Your task to perform on an android device: Search for Mexican restaurants on Maps Image 0: 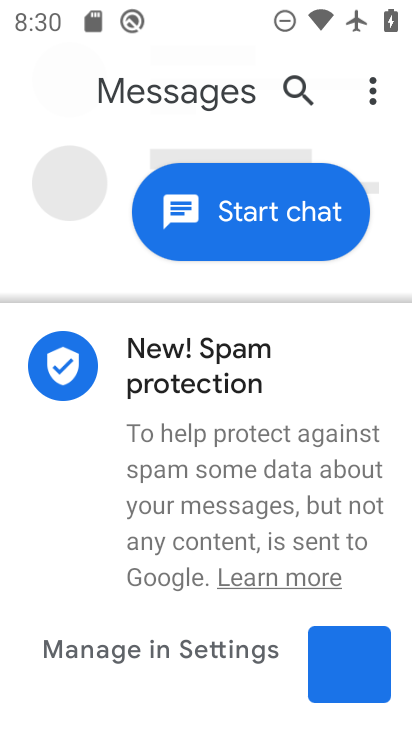
Step 0: press home button
Your task to perform on an android device: Search for Mexican restaurants on Maps Image 1: 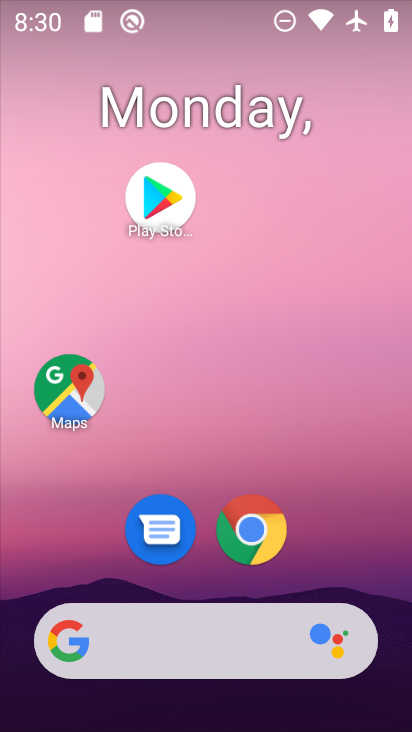
Step 1: click (56, 389)
Your task to perform on an android device: Search for Mexican restaurants on Maps Image 2: 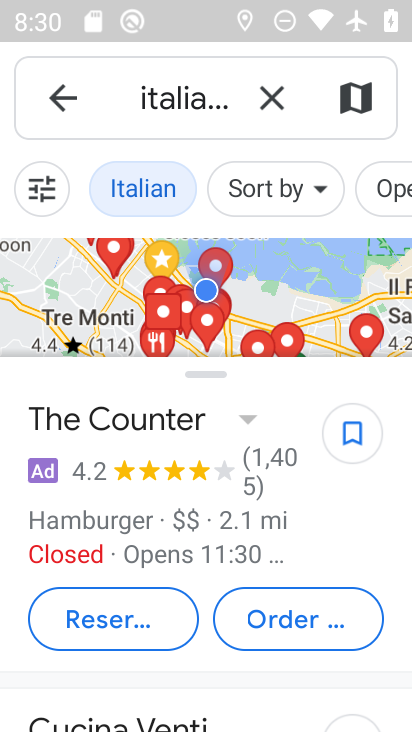
Step 2: click (269, 102)
Your task to perform on an android device: Search for Mexican restaurants on Maps Image 3: 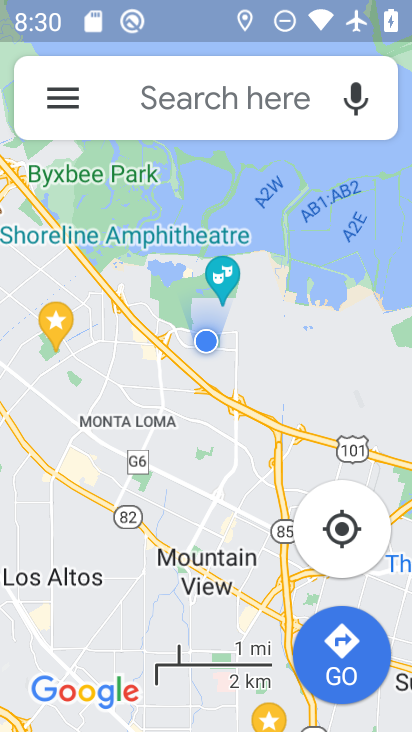
Step 3: click (204, 95)
Your task to perform on an android device: Search for Mexican restaurants on Maps Image 4: 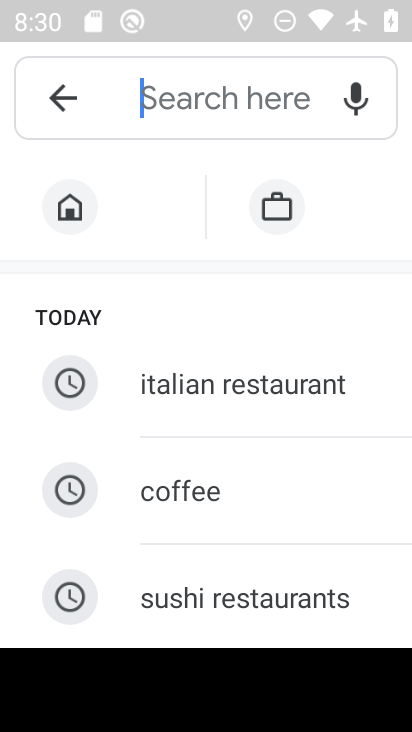
Step 4: type "mexican"
Your task to perform on an android device: Search for Mexican restaurants on Maps Image 5: 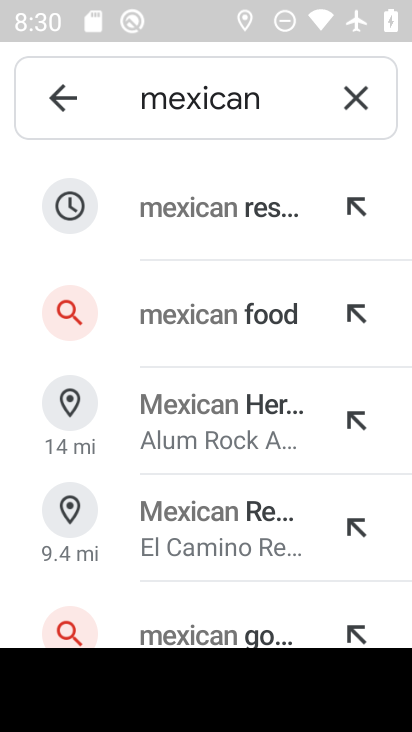
Step 5: click (218, 201)
Your task to perform on an android device: Search for Mexican restaurants on Maps Image 6: 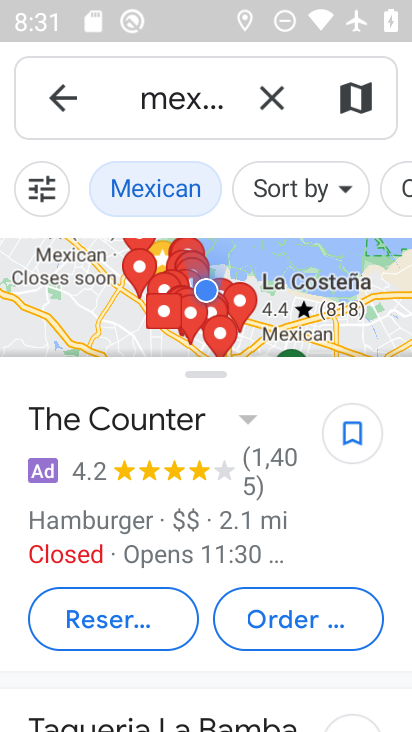
Step 6: task complete